Your task to perform on an android device: toggle javascript in the chrome app Image 0: 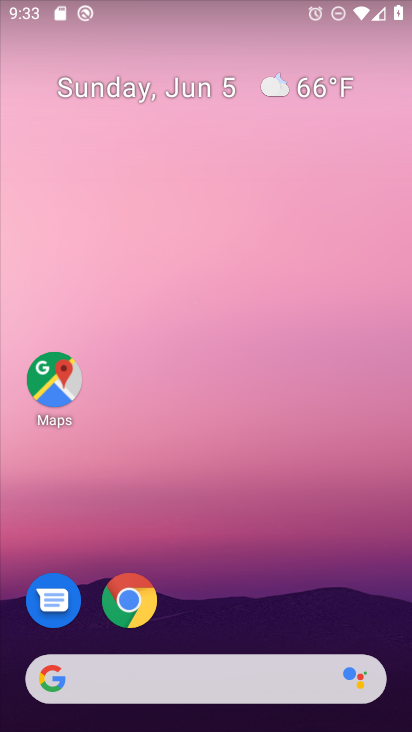
Step 0: drag from (339, 635) to (242, 44)
Your task to perform on an android device: toggle javascript in the chrome app Image 1: 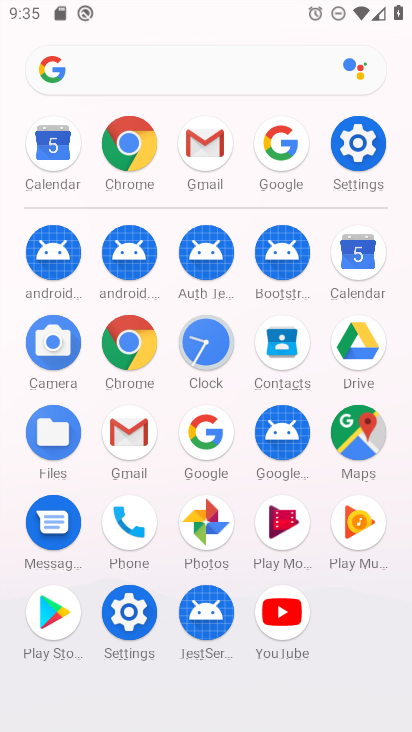
Step 1: click (126, 160)
Your task to perform on an android device: toggle javascript in the chrome app Image 2: 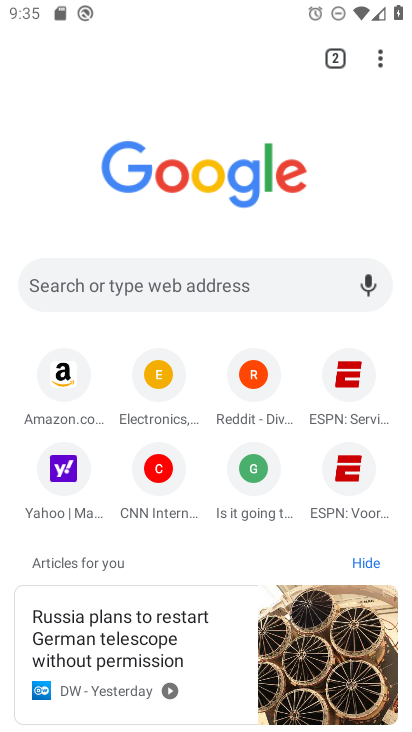
Step 2: click (378, 52)
Your task to perform on an android device: toggle javascript in the chrome app Image 3: 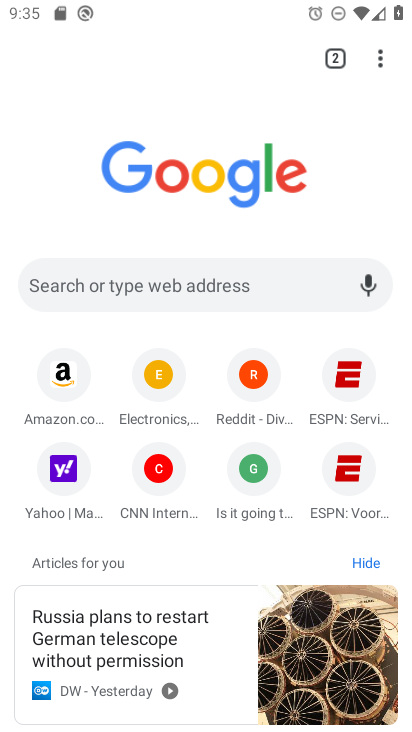
Step 3: click (378, 52)
Your task to perform on an android device: toggle javascript in the chrome app Image 4: 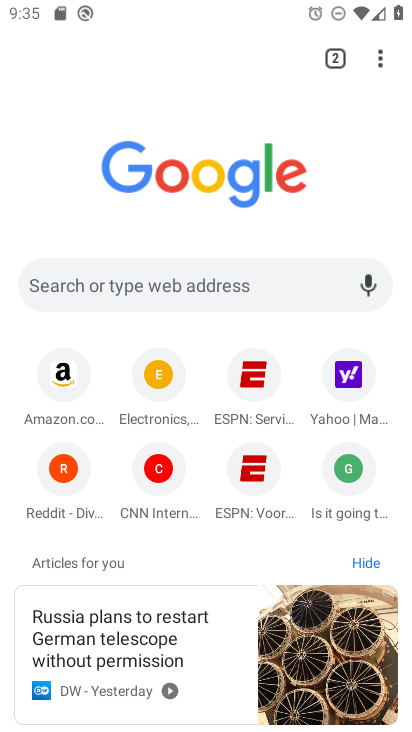
Step 4: click (384, 47)
Your task to perform on an android device: toggle javascript in the chrome app Image 5: 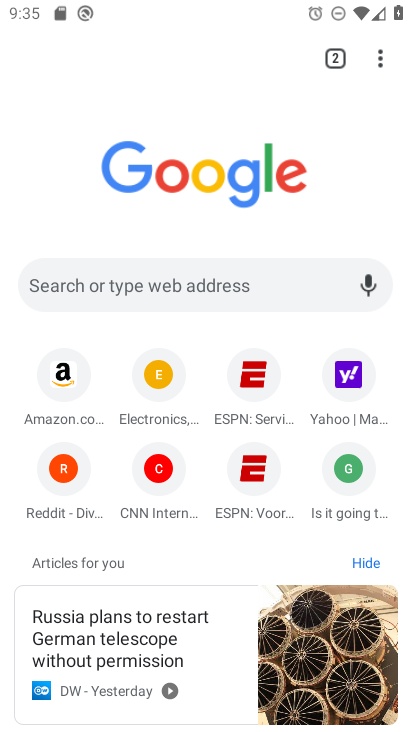
Step 5: click (384, 47)
Your task to perform on an android device: toggle javascript in the chrome app Image 6: 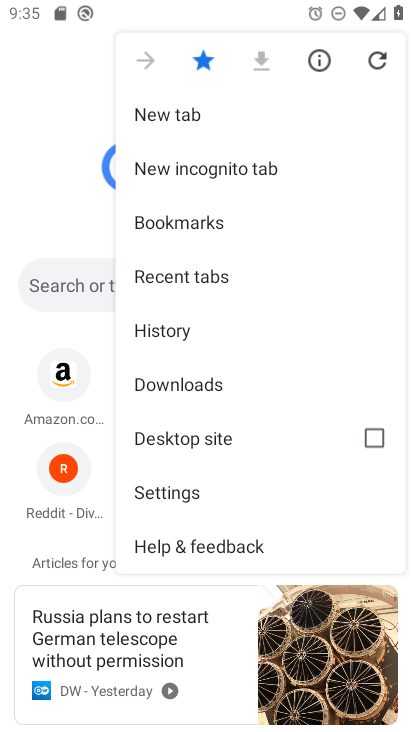
Step 6: click (204, 481)
Your task to perform on an android device: toggle javascript in the chrome app Image 7: 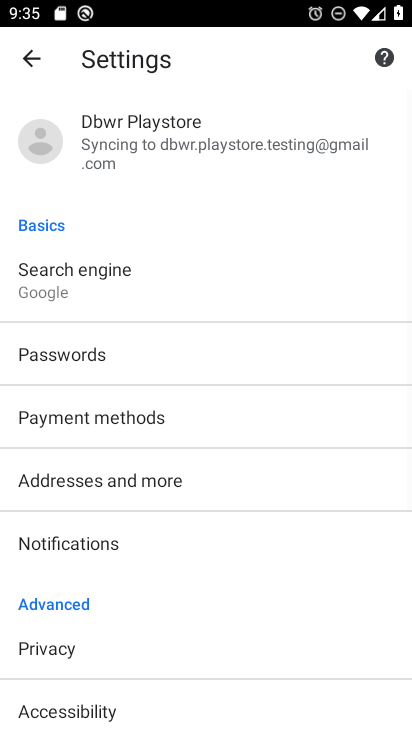
Step 7: drag from (233, 688) to (225, 203)
Your task to perform on an android device: toggle javascript in the chrome app Image 8: 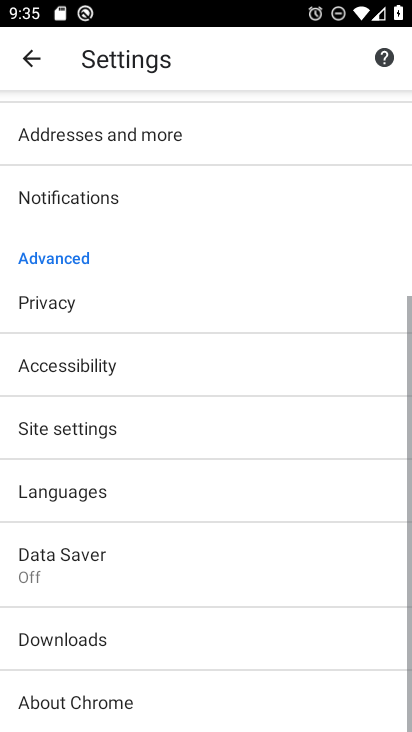
Step 8: click (112, 451)
Your task to perform on an android device: toggle javascript in the chrome app Image 9: 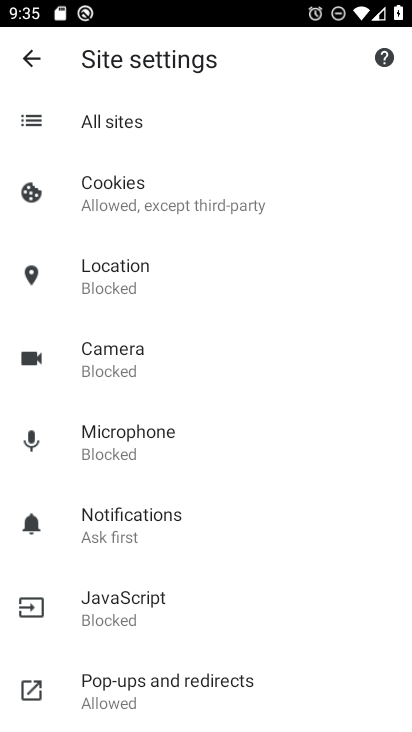
Step 9: click (135, 632)
Your task to perform on an android device: toggle javascript in the chrome app Image 10: 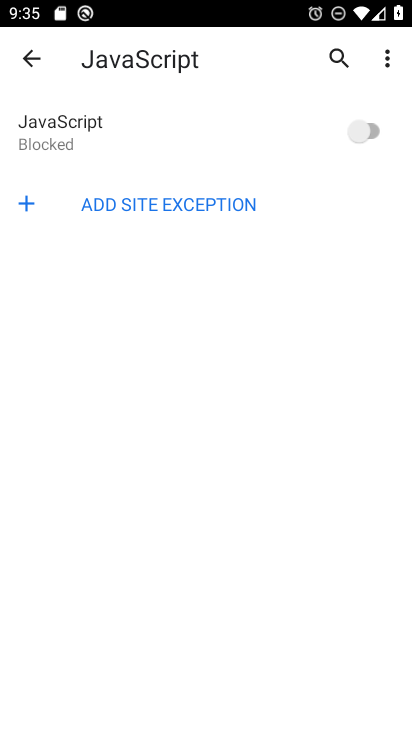
Step 10: click (364, 138)
Your task to perform on an android device: toggle javascript in the chrome app Image 11: 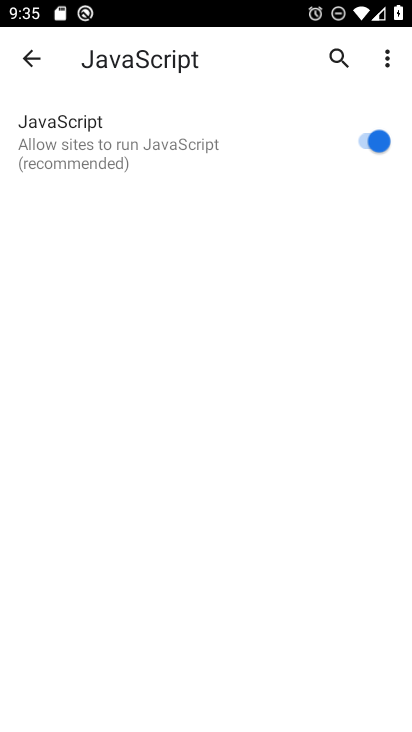
Step 11: task complete